Your task to perform on an android device: open app "Expedia: Hotels, Flights & Car" Image 0: 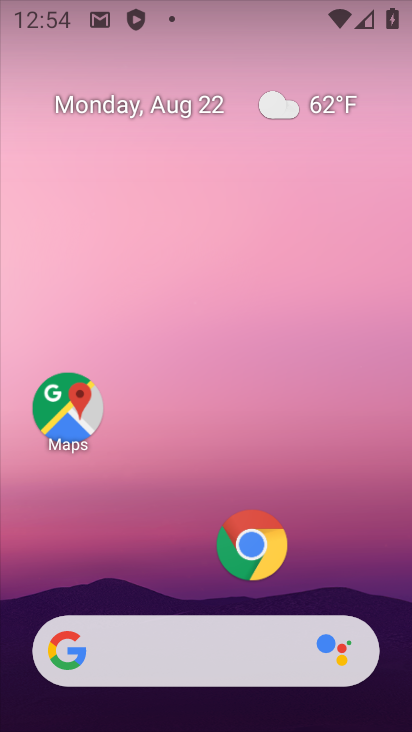
Step 0: drag from (158, 556) to (278, 27)
Your task to perform on an android device: open app "Expedia: Hotels, Flights & Car" Image 1: 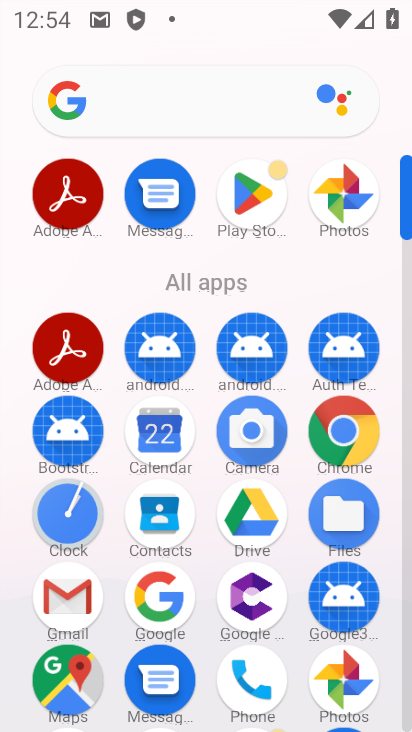
Step 1: click (250, 183)
Your task to perform on an android device: open app "Expedia: Hotels, Flights & Car" Image 2: 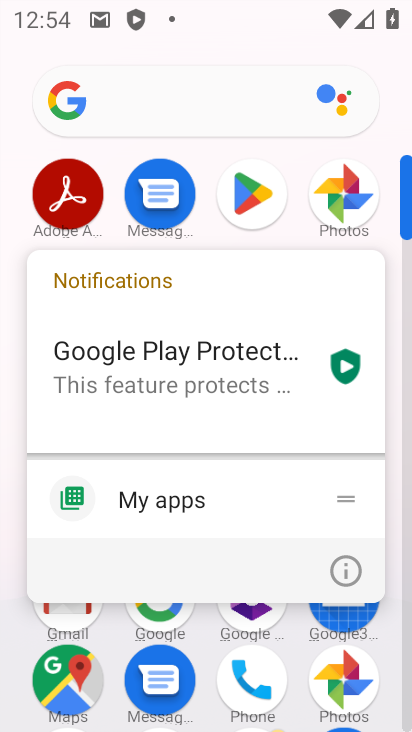
Step 2: click (259, 189)
Your task to perform on an android device: open app "Expedia: Hotels, Flights & Car" Image 3: 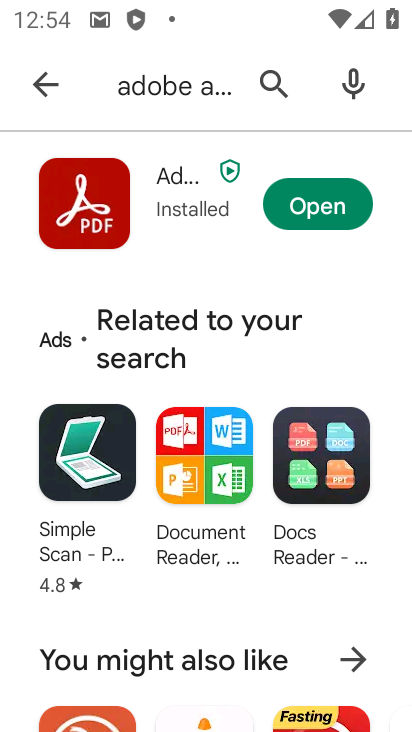
Step 3: click (260, 100)
Your task to perform on an android device: open app "Expedia: Hotels, Flights & Car" Image 4: 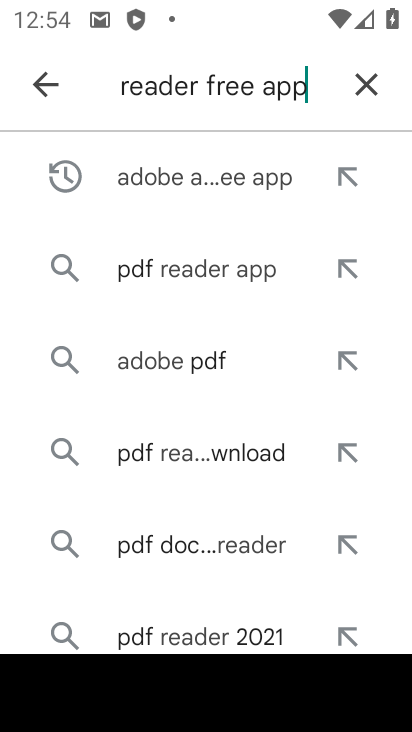
Step 4: click (398, 78)
Your task to perform on an android device: open app "Expedia: Hotels, Flights & Car" Image 5: 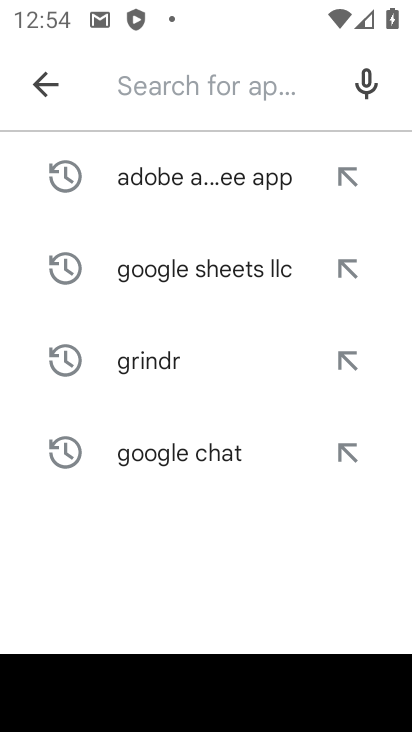
Step 5: type "expedia"
Your task to perform on an android device: open app "Expedia: Hotels, Flights & Car" Image 6: 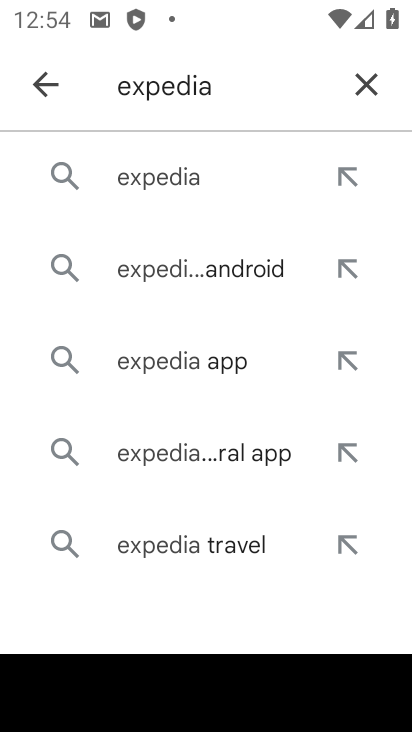
Step 6: click (150, 184)
Your task to perform on an android device: open app "Expedia: Hotels, Flights & Car" Image 7: 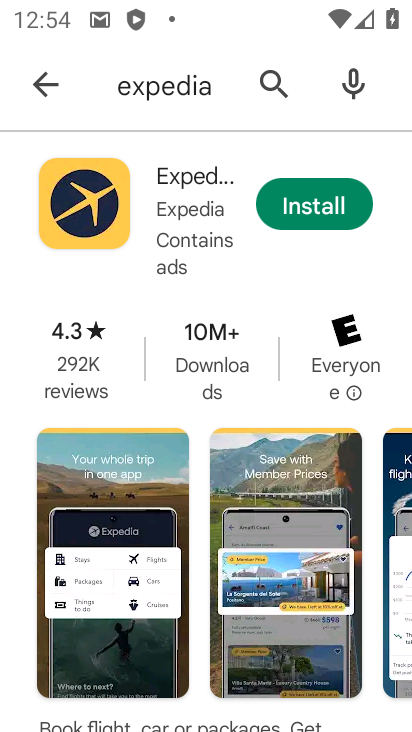
Step 7: task complete